Your task to perform on an android device: Open the web browser Image 0: 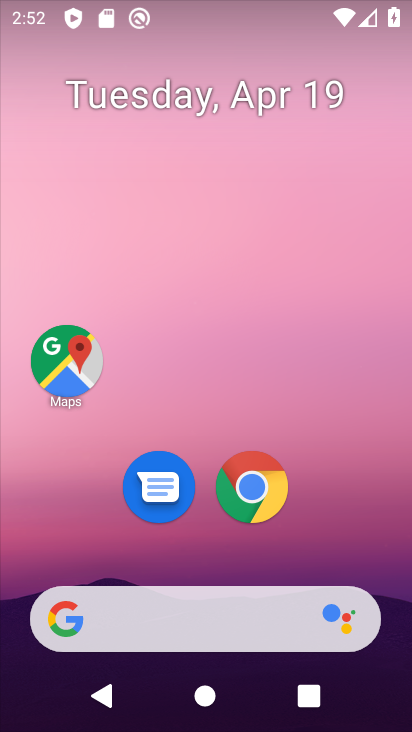
Step 0: click (248, 483)
Your task to perform on an android device: Open the web browser Image 1: 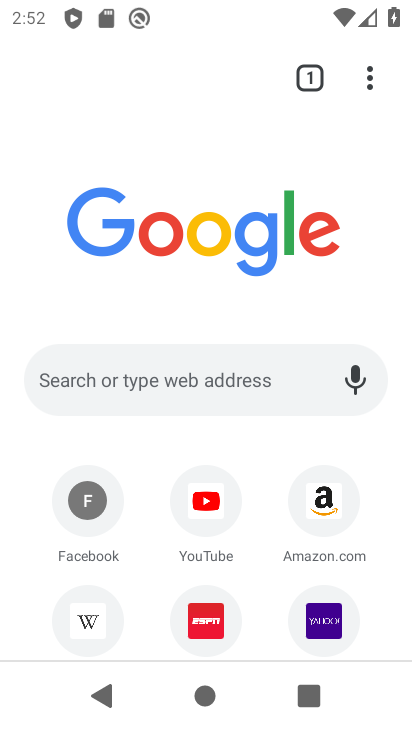
Step 1: task complete